Your task to perform on an android device: Open Chrome and go to the settings page Image 0: 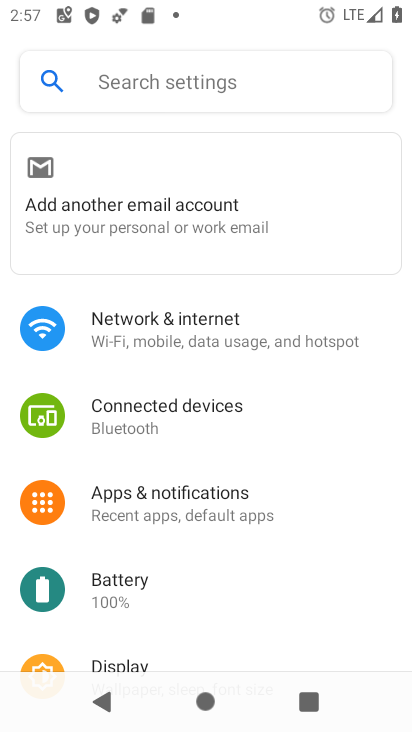
Step 0: press home button
Your task to perform on an android device: Open Chrome and go to the settings page Image 1: 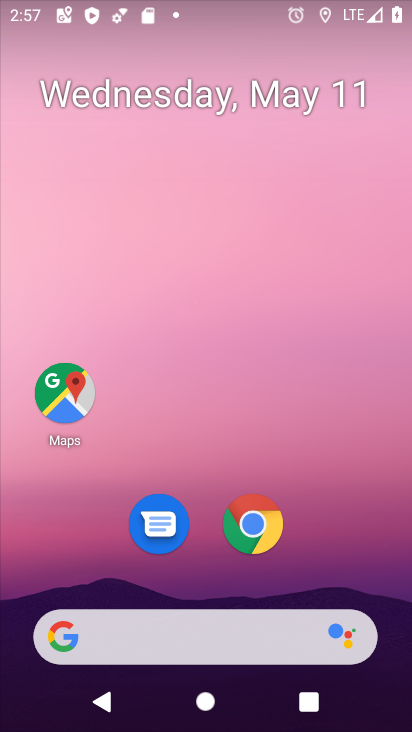
Step 1: click (267, 520)
Your task to perform on an android device: Open Chrome and go to the settings page Image 2: 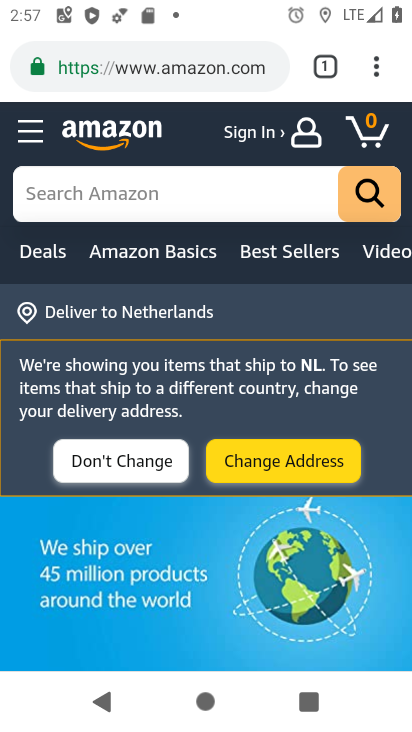
Step 2: click (378, 70)
Your task to perform on an android device: Open Chrome and go to the settings page Image 3: 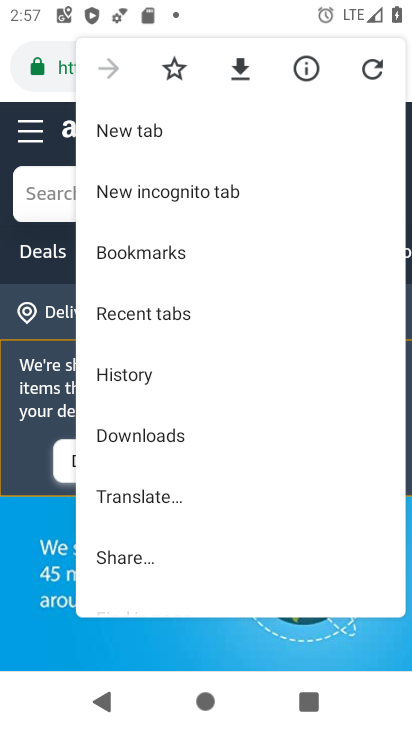
Step 3: drag from (227, 417) to (230, 163)
Your task to perform on an android device: Open Chrome and go to the settings page Image 4: 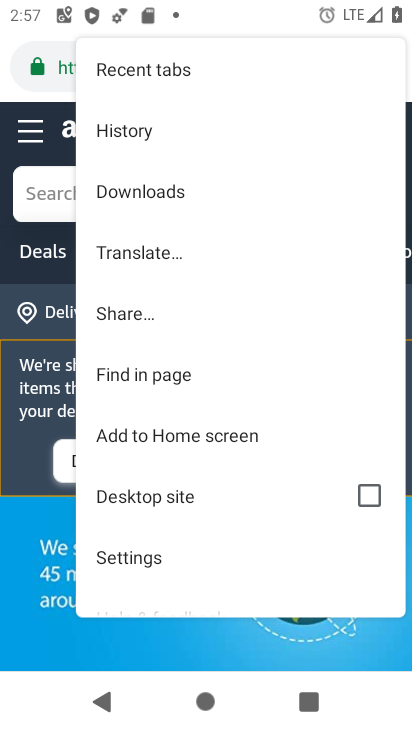
Step 4: click (154, 546)
Your task to perform on an android device: Open Chrome and go to the settings page Image 5: 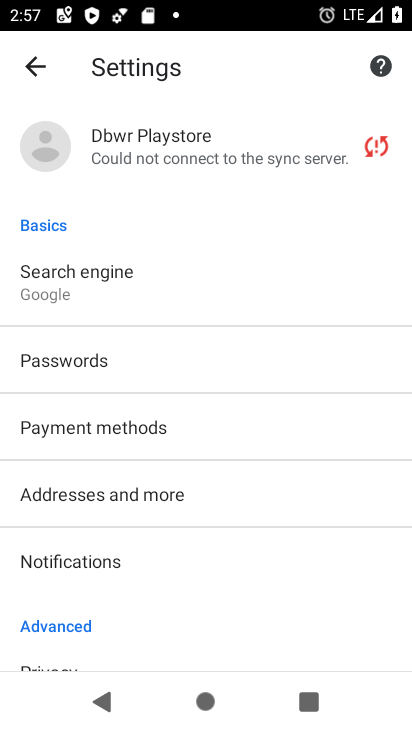
Step 5: task complete